Your task to perform on an android device: Open the map Image 0: 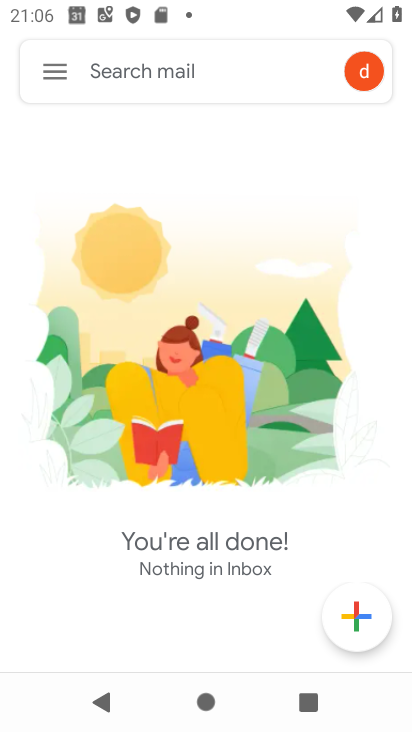
Step 0: press home button
Your task to perform on an android device: Open the map Image 1: 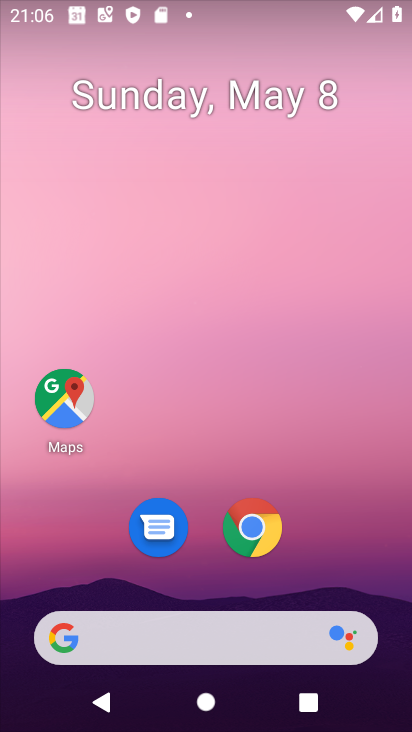
Step 1: click (67, 402)
Your task to perform on an android device: Open the map Image 2: 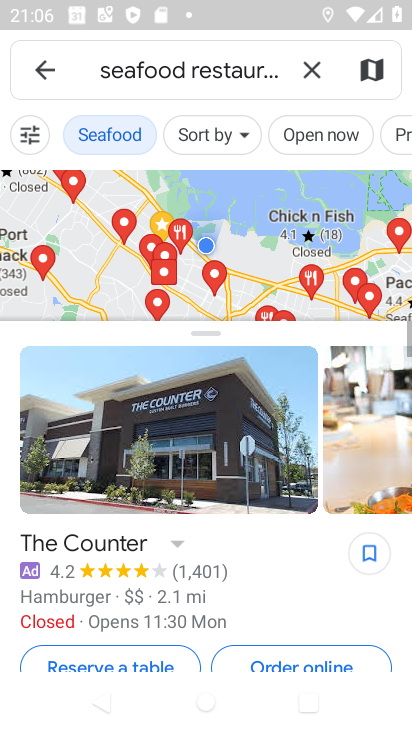
Step 2: task complete